Your task to perform on an android device: Is it going to rain this weekend? Image 0: 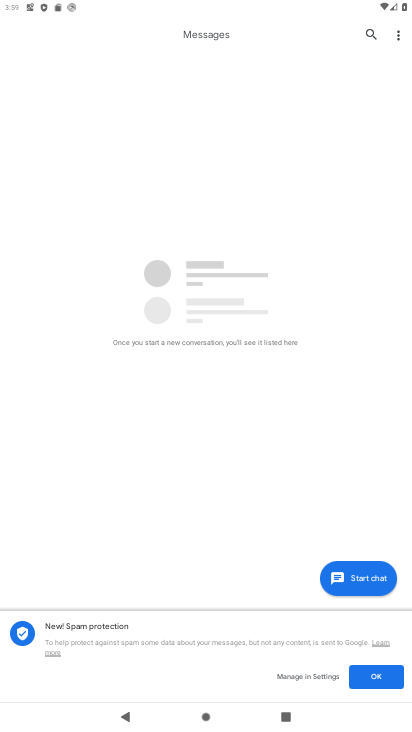
Step 0: press home button
Your task to perform on an android device: Is it going to rain this weekend? Image 1: 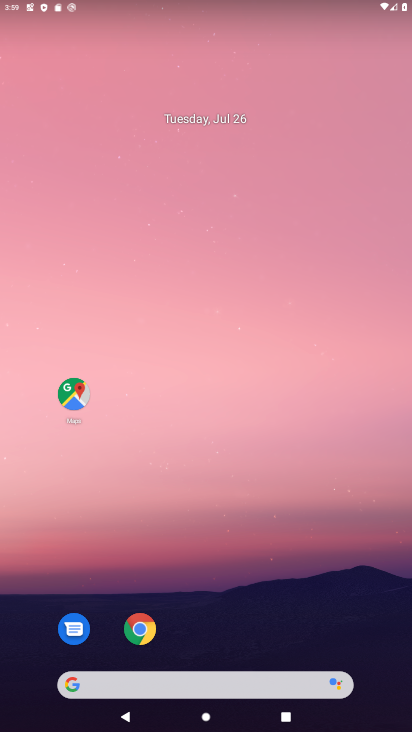
Step 1: click (227, 688)
Your task to perform on an android device: Is it going to rain this weekend? Image 2: 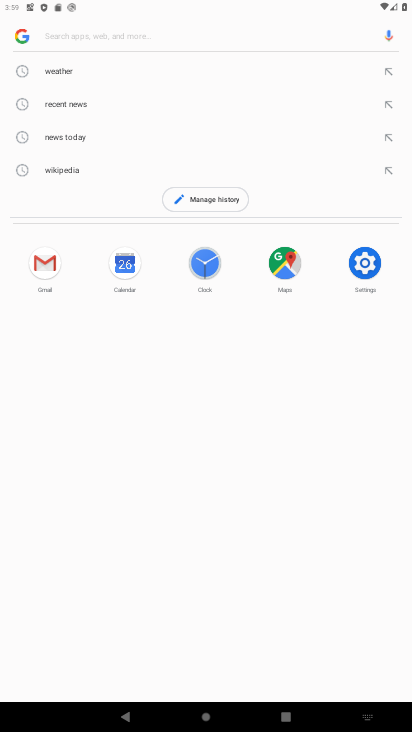
Step 2: click (59, 70)
Your task to perform on an android device: Is it going to rain this weekend? Image 3: 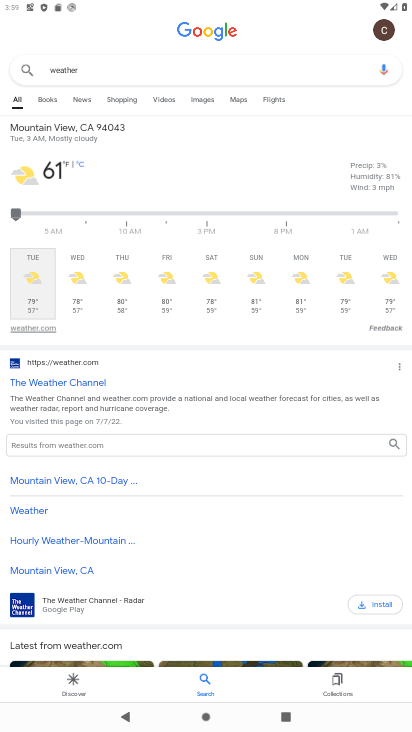
Step 3: click (211, 275)
Your task to perform on an android device: Is it going to rain this weekend? Image 4: 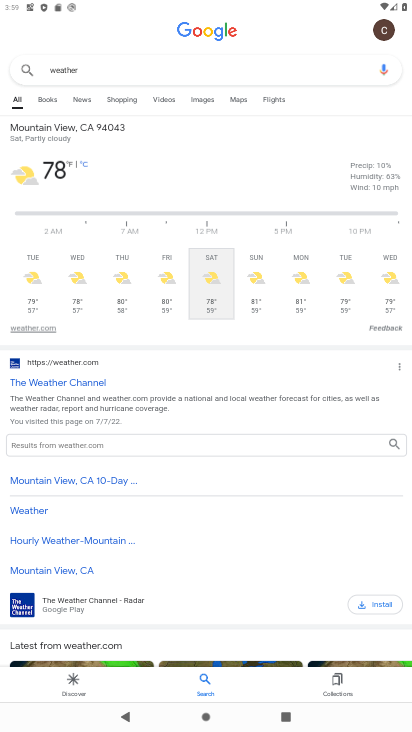
Step 4: task complete